Your task to perform on an android device: see sites visited before in the chrome app Image 0: 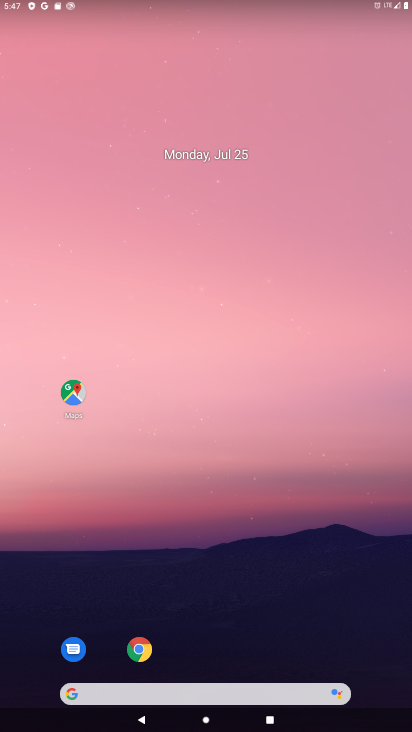
Step 0: drag from (252, 691) to (339, 8)
Your task to perform on an android device: see sites visited before in the chrome app Image 1: 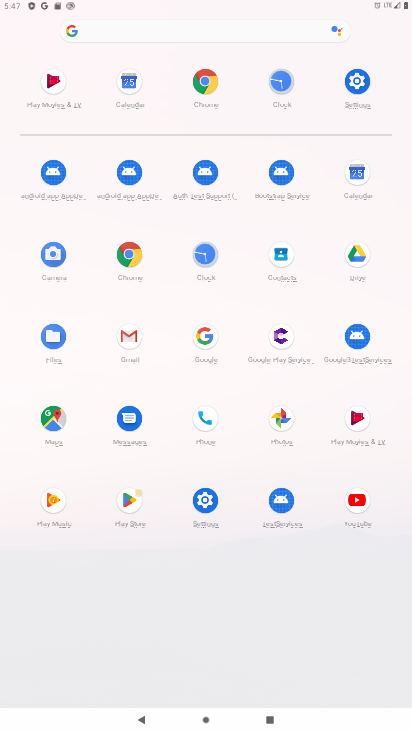
Step 1: click (129, 260)
Your task to perform on an android device: see sites visited before in the chrome app Image 2: 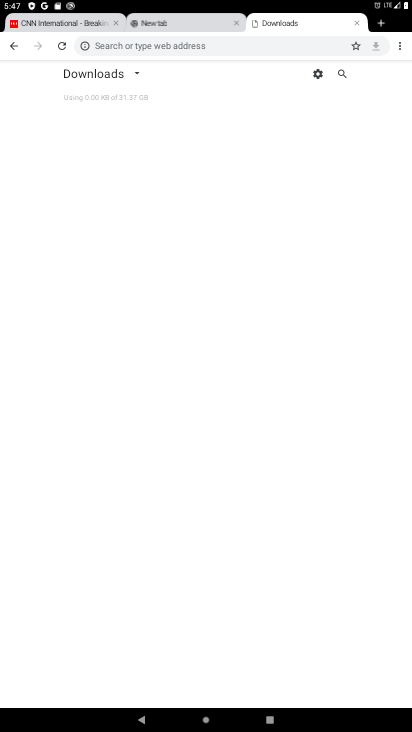
Step 2: task complete